Your task to perform on an android device: Open the calendar app, open the side menu, and click the "Day" option Image 0: 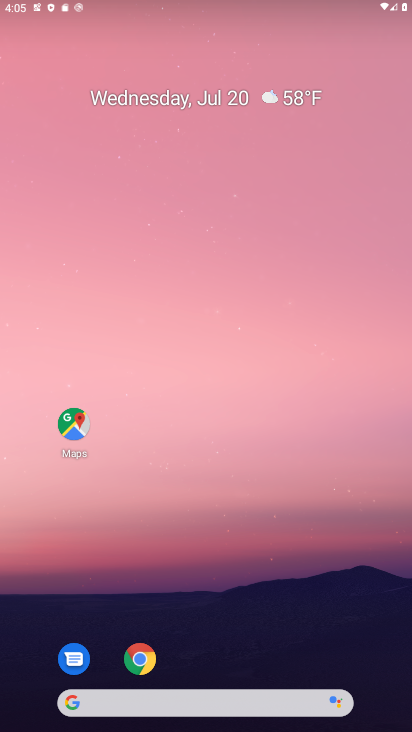
Step 0: click (150, 226)
Your task to perform on an android device: Open the calendar app, open the side menu, and click the "Day" option Image 1: 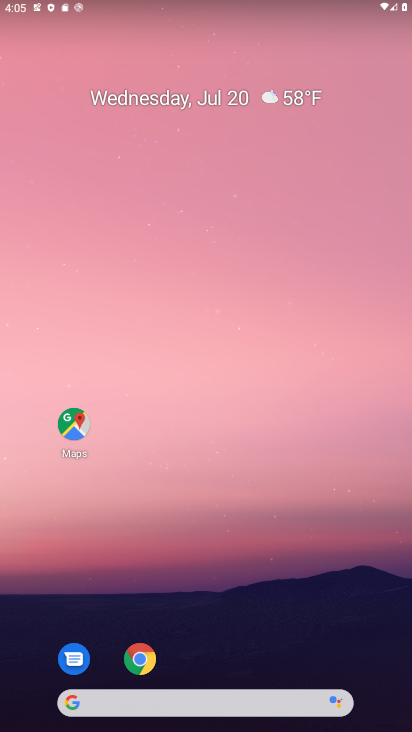
Step 1: drag from (232, 688) to (216, 349)
Your task to perform on an android device: Open the calendar app, open the side menu, and click the "Day" option Image 2: 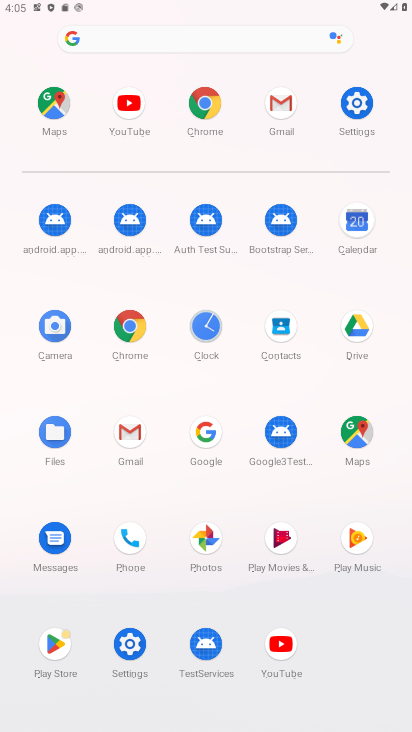
Step 2: click (356, 222)
Your task to perform on an android device: Open the calendar app, open the side menu, and click the "Day" option Image 3: 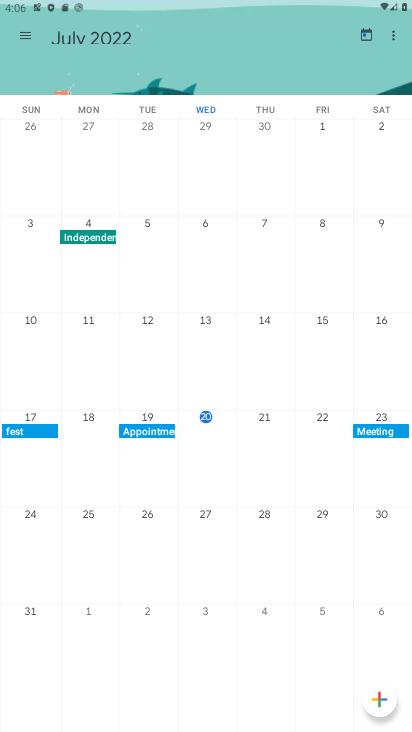
Step 3: click (29, 36)
Your task to perform on an android device: Open the calendar app, open the side menu, and click the "Day" option Image 4: 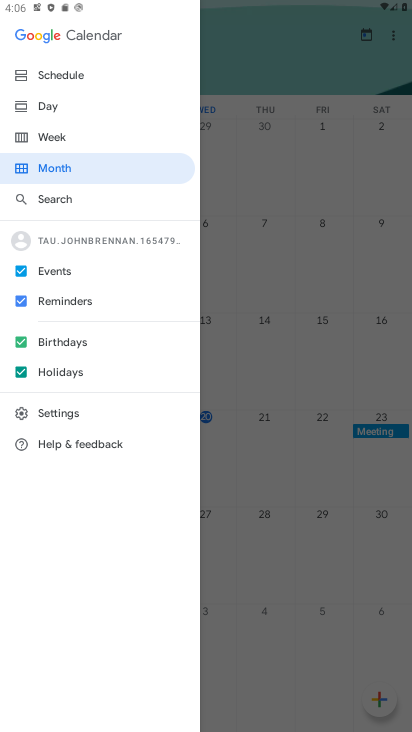
Step 4: click (43, 100)
Your task to perform on an android device: Open the calendar app, open the side menu, and click the "Day" option Image 5: 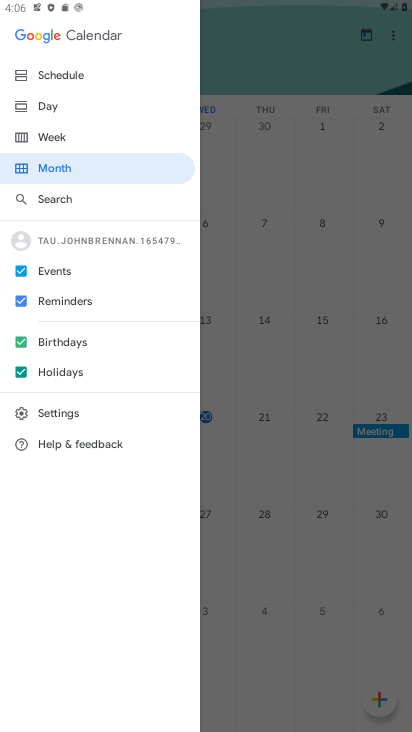
Step 5: click (47, 105)
Your task to perform on an android device: Open the calendar app, open the side menu, and click the "Day" option Image 6: 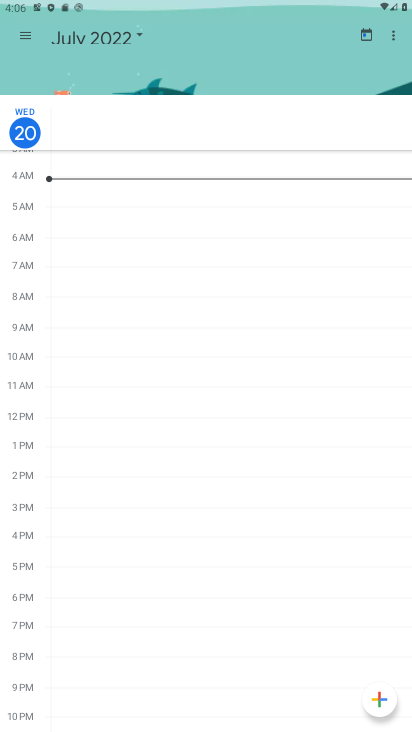
Step 6: task complete